Your task to perform on an android device: Go to Yahoo.com Image 0: 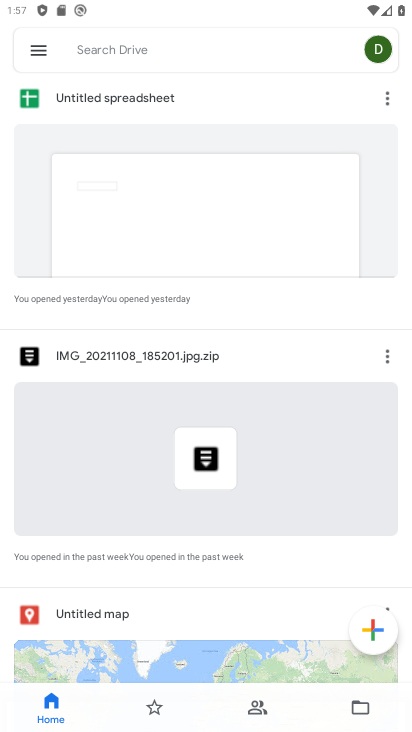
Step 0: press home button
Your task to perform on an android device: Go to Yahoo.com Image 1: 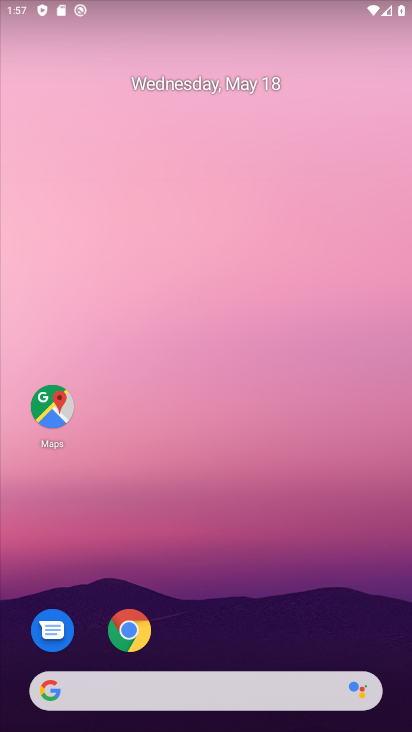
Step 1: click (129, 639)
Your task to perform on an android device: Go to Yahoo.com Image 2: 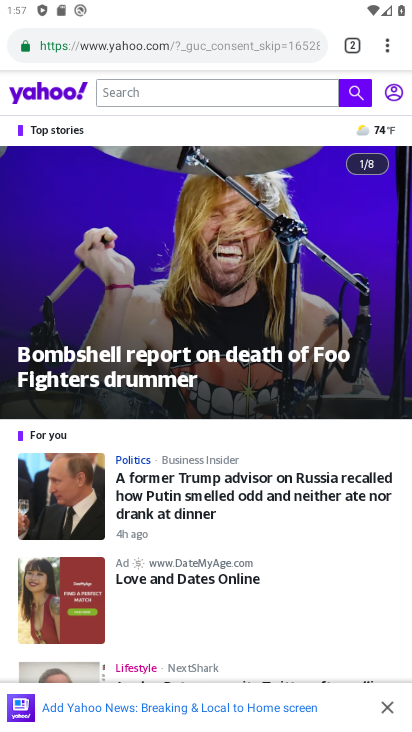
Step 2: task complete